Your task to perform on an android device: Go to ESPN.com Image 0: 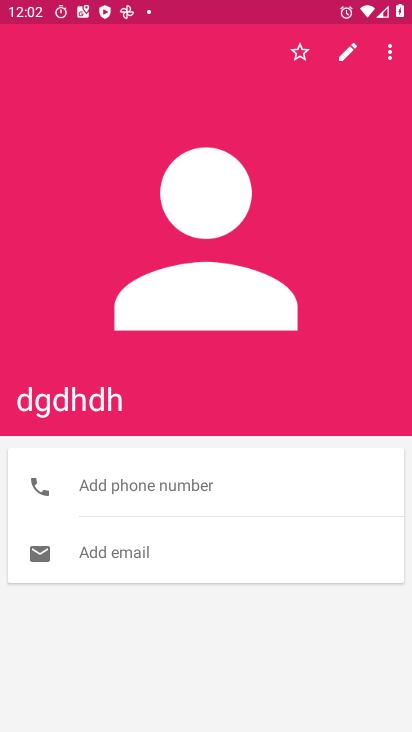
Step 0: press home button
Your task to perform on an android device: Go to ESPN.com Image 1: 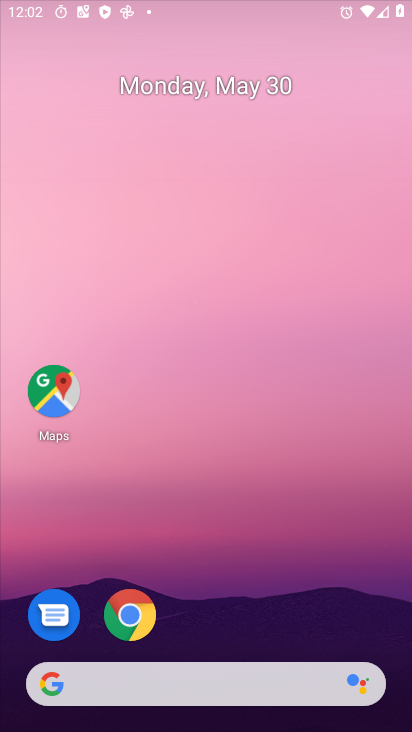
Step 1: drag from (245, 580) to (338, 11)
Your task to perform on an android device: Go to ESPN.com Image 2: 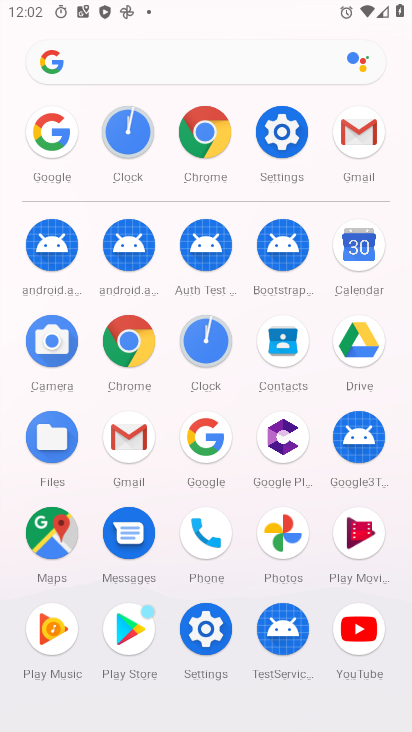
Step 2: click (204, 432)
Your task to perform on an android device: Go to ESPN.com Image 3: 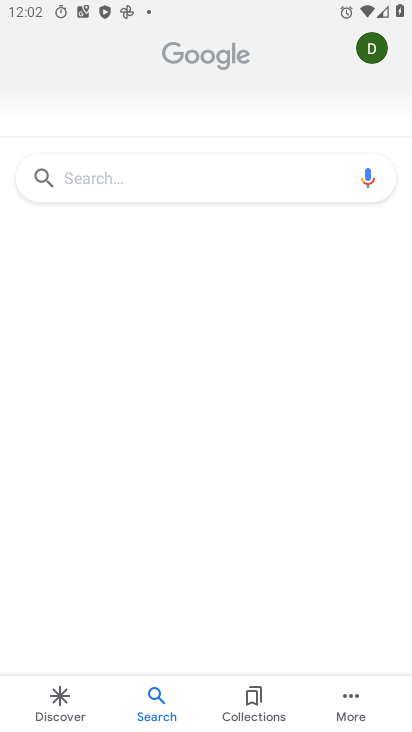
Step 3: click (168, 164)
Your task to perform on an android device: Go to ESPN.com Image 4: 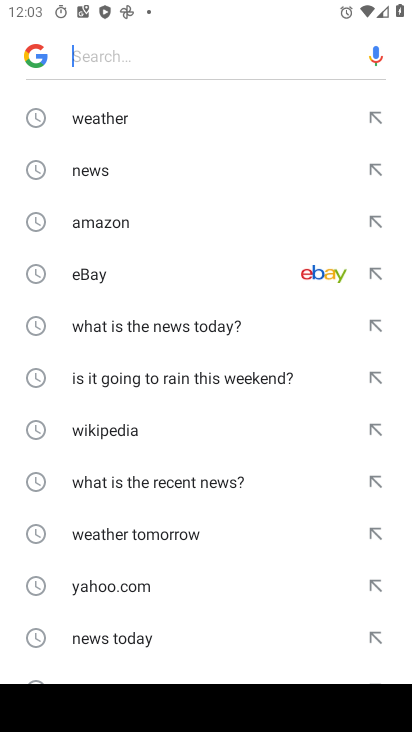
Step 4: drag from (179, 510) to (177, 40)
Your task to perform on an android device: Go to ESPN.com Image 5: 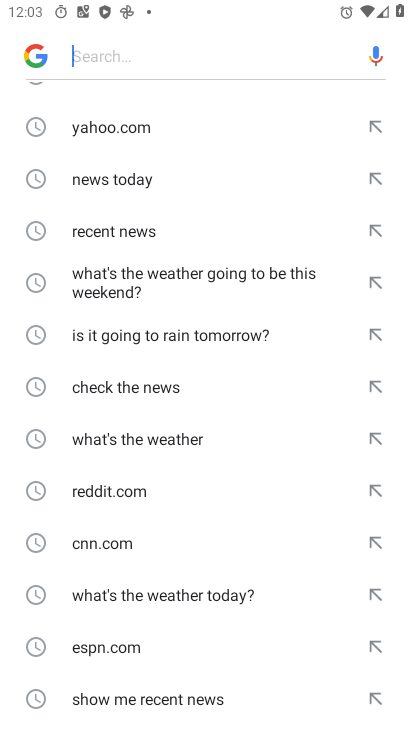
Step 5: click (93, 656)
Your task to perform on an android device: Go to ESPN.com Image 6: 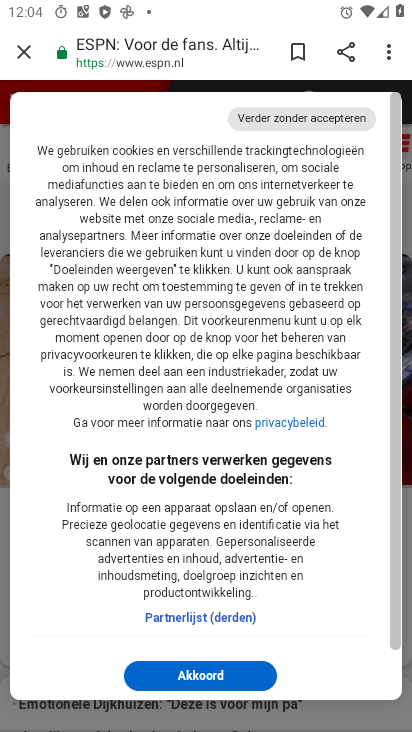
Step 6: task complete